Your task to perform on an android device: turn off javascript in the chrome app Image 0: 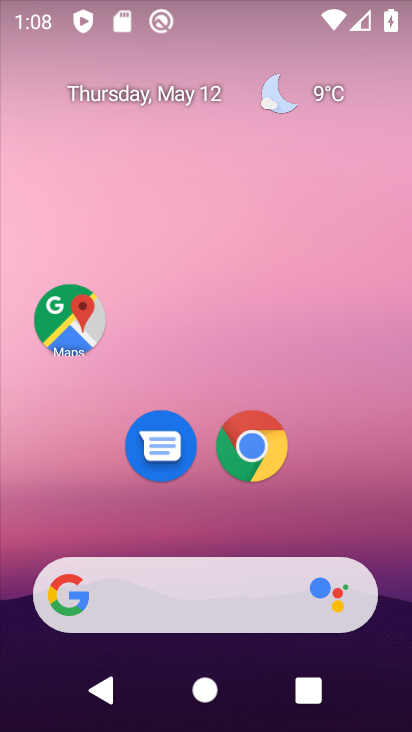
Step 0: drag from (159, 538) to (215, 285)
Your task to perform on an android device: turn off javascript in the chrome app Image 1: 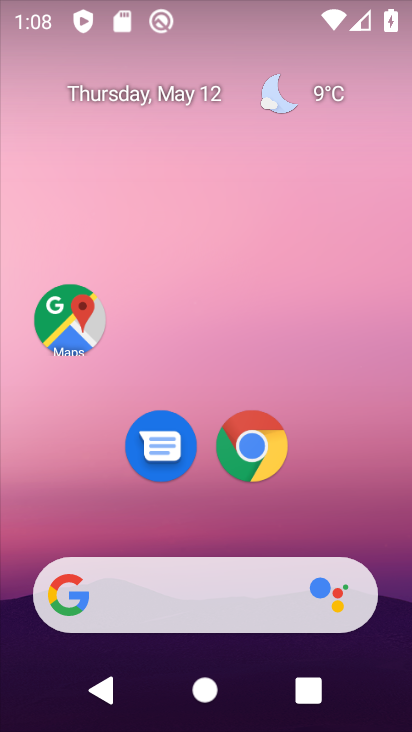
Step 1: drag from (169, 531) to (294, 119)
Your task to perform on an android device: turn off javascript in the chrome app Image 2: 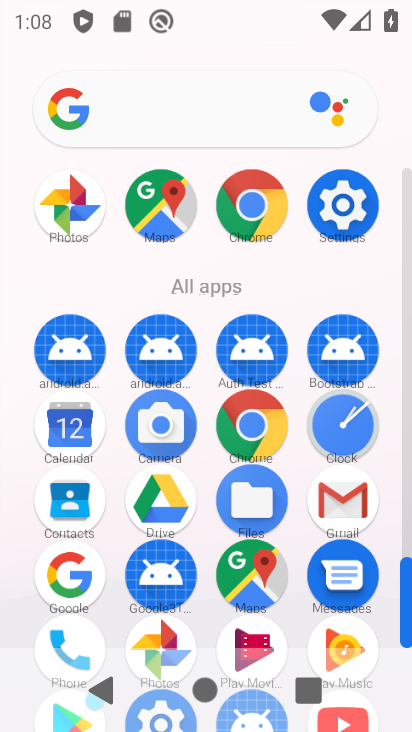
Step 2: drag from (151, 600) to (207, 420)
Your task to perform on an android device: turn off javascript in the chrome app Image 3: 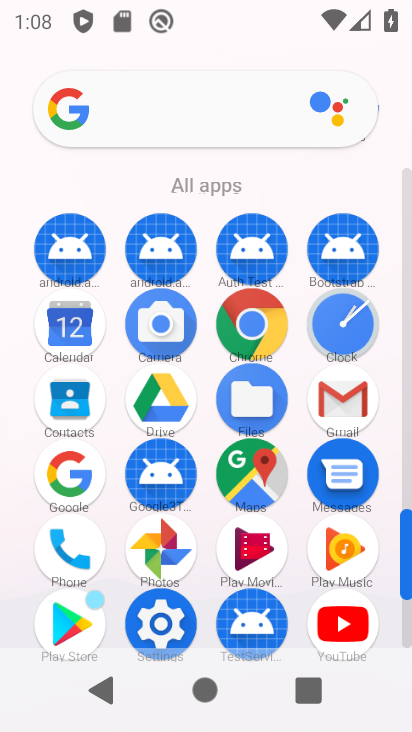
Step 3: click (267, 333)
Your task to perform on an android device: turn off javascript in the chrome app Image 4: 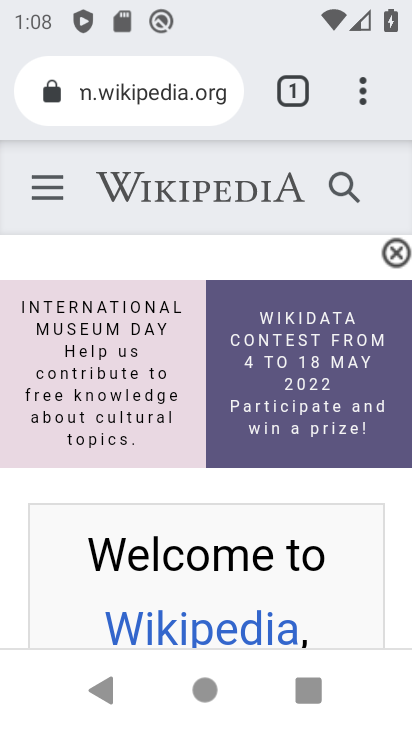
Step 4: drag from (379, 105) to (250, 469)
Your task to perform on an android device: turn off javascript in the chrome app Image 5: 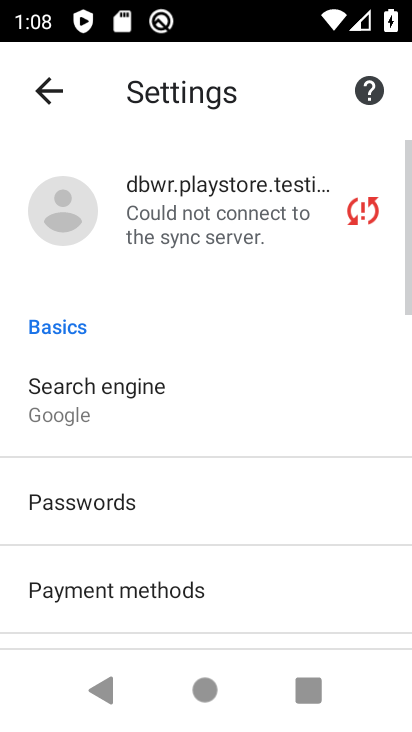
Step 5: drag from (244, 628) to (405, 245)
Your task to perform on an android device: turn off javascript in the chrome app Image 6: 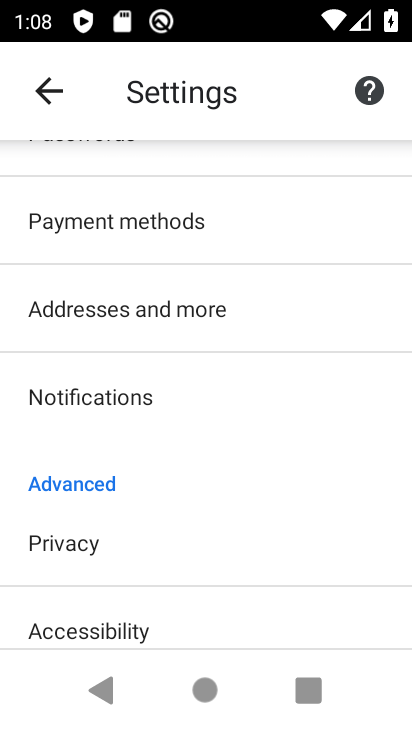
Step 6: drag from (138, 590) to (197, 278)
Your task to perform on an android device: turn off javascript in the chrome app Image 7: 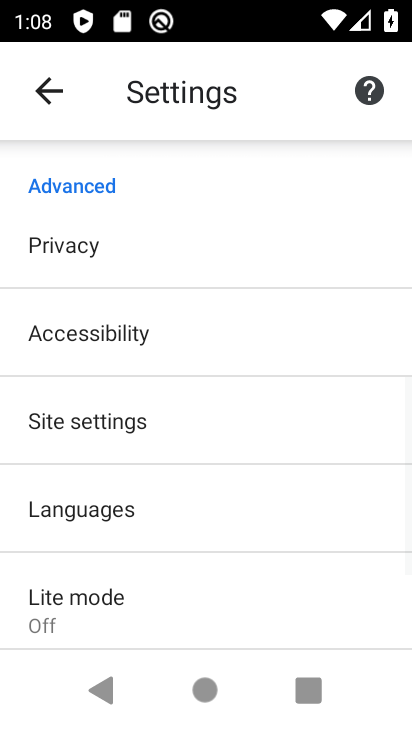
Step 7: click (148, 434)
Your task to perform on an android device: turn off javascript in the chrome app Image 8: 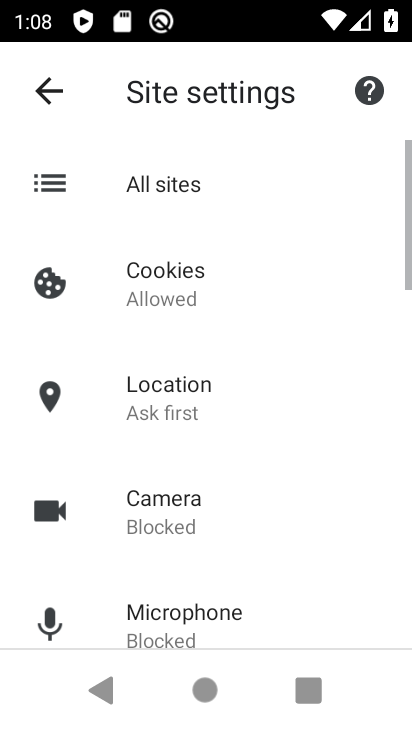
Step 8: drag from (166, 634) to (230, 296)
Your task to perform on an android device: turn off javascript in the chrome app Image 9: 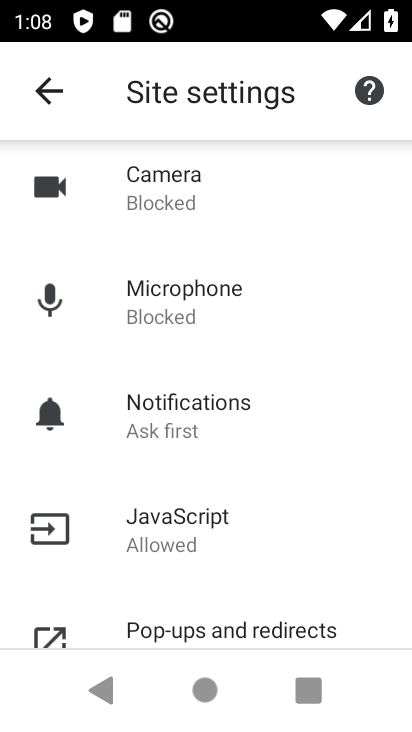
Step 9: click (178, 549)
Your task to perform on an android device: turn off javascript in the chrome app Image 10: 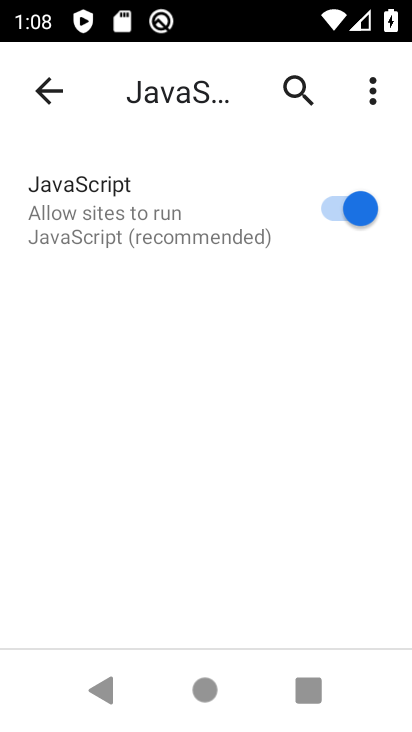
Step 10: click (336, 200)
Your task to perform on an android device: turn off javascript in the chrome app Image 11: 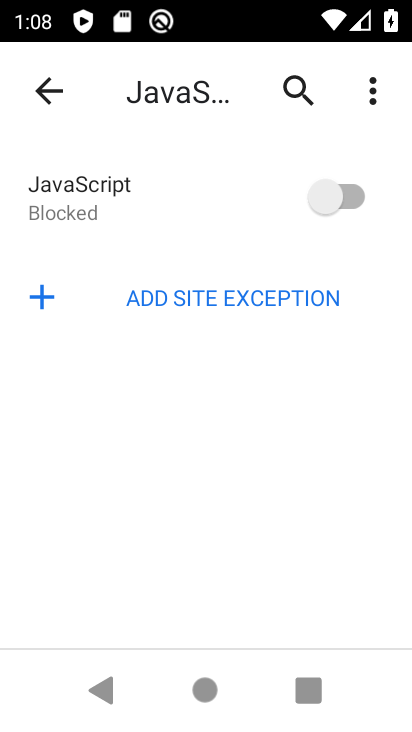
Step 11: task complete